Your task to perform on an android device: Open Amazon Image 0: 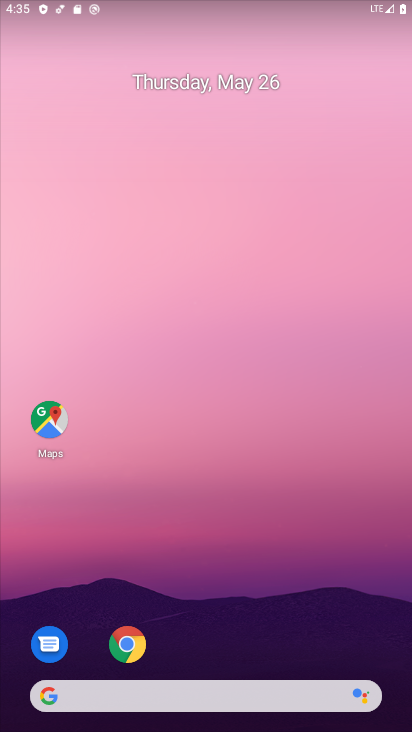
Step 0: drag from (275, 595) to (210, 38)
Your task to perform on an android device: Open Amazon Image 1: 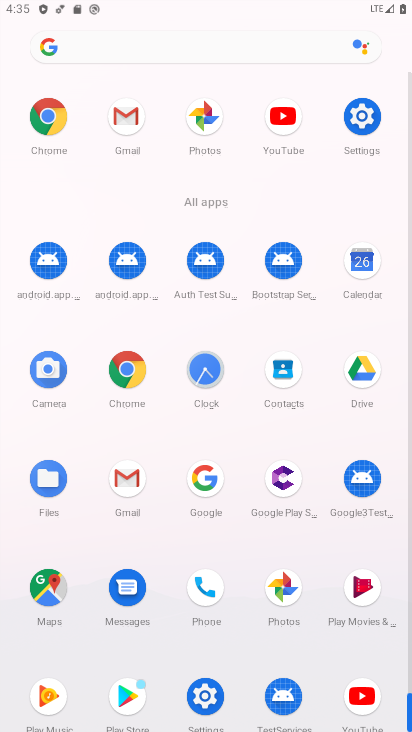
Step 1: click (124, 367)
Your task to perform on an android device: Open Amazon Image 2: 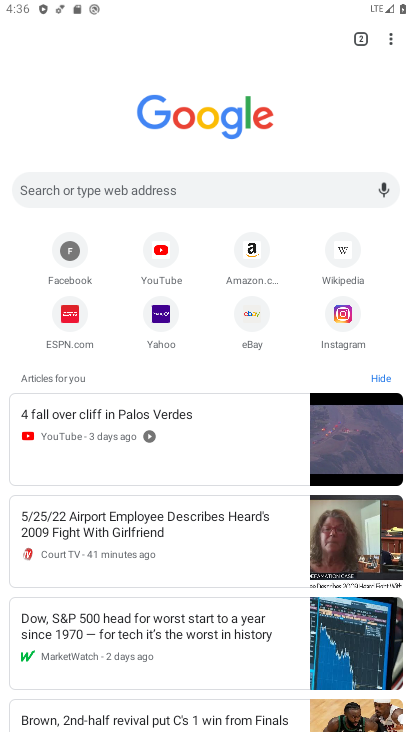
Step 2: click (249, 256)
Your task to perform on an android device: Open Amazon Image 3: 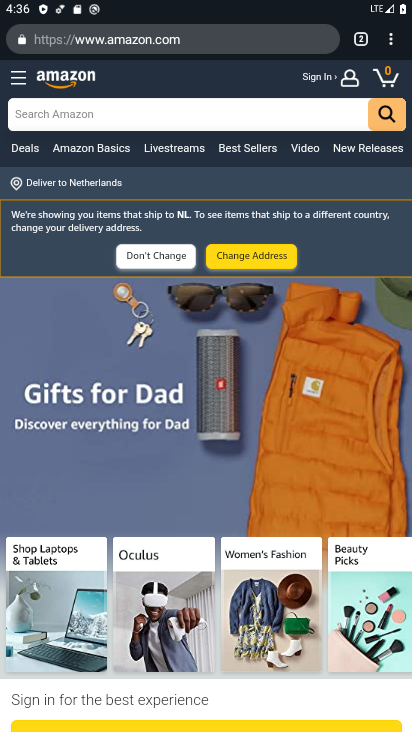
Step 3: task complete